Your task to perform on an android device: Go to accessibility settings Image 0: 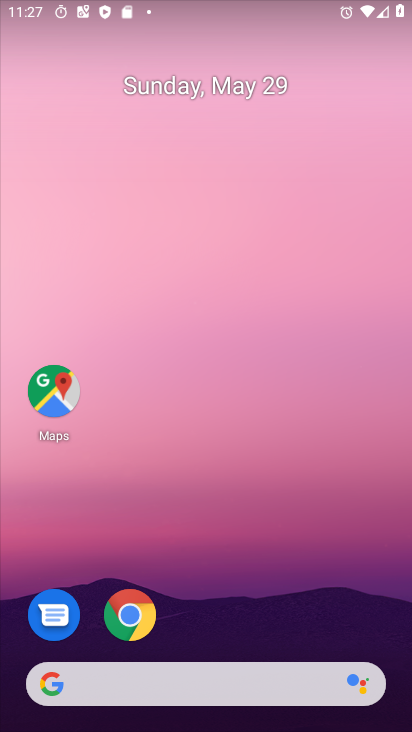
Step 0: drag from (213, 622) to (199, 160)
Your task to perform on an android device: Go to accessibility settings Image 1: 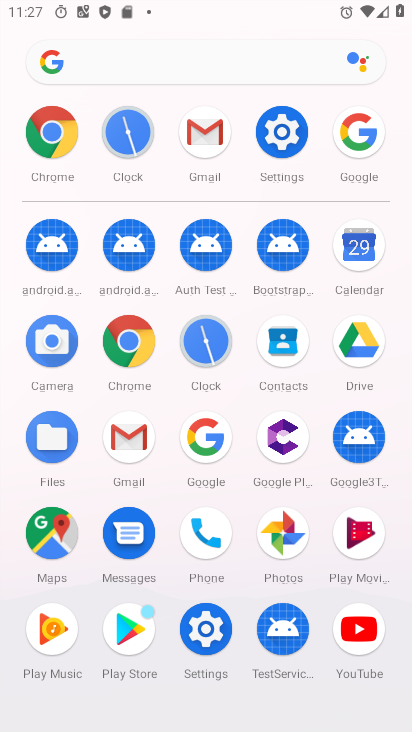
Step 1: click (268, 135)
Your task to perform on an android device: Go to accessibility settings Image 2: 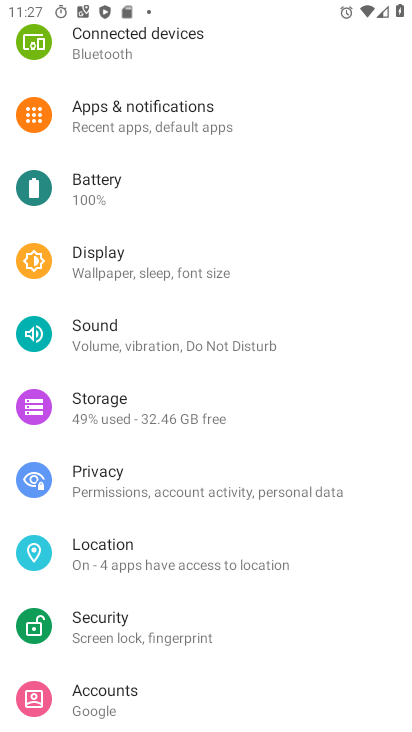
Step 2: drag from (170, 627) to (192, 273)
Your task to perform on an android device: Go to accessibility settings Image 3: 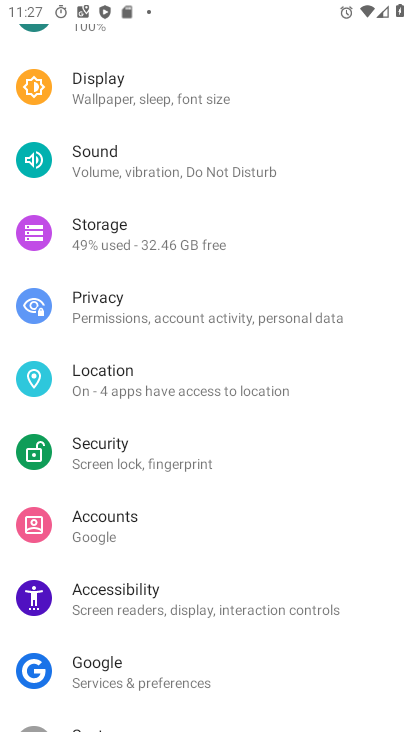
Step 3: click (159, 605)
Your task to perform on an android device: Go to accessibility settings Image 4: 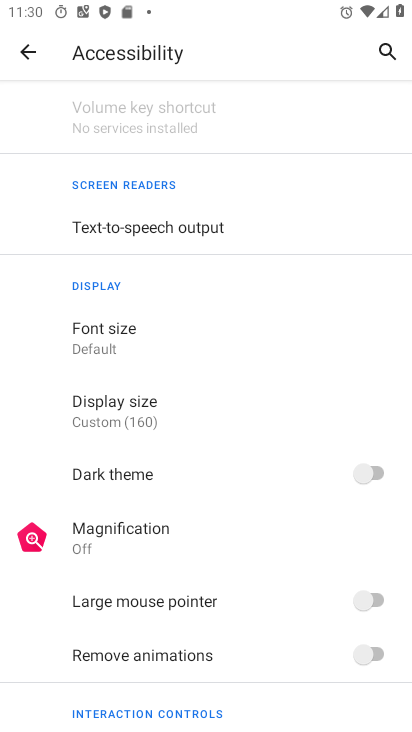
Step 4: task complete